Your task to perform on an android device: toggle sleep mode Image 0: 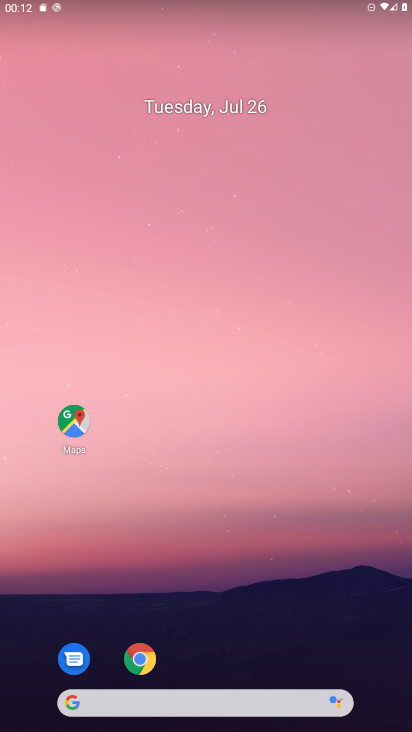
Step 0: drag from (308, 635) to (331, 139)
Your task to perform on an android device: toggle sleep mode Image 1: 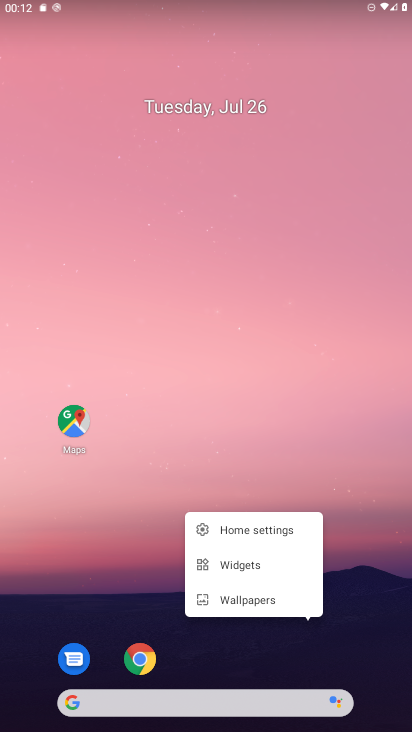
Step 1: click (263, 375)
Your task to perform on an android device: toggle sleep mode Image 2: 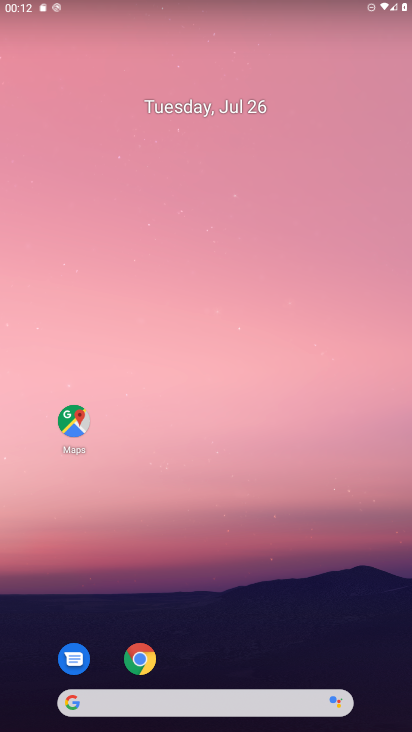
Step 2: drag from (285, 604) to (210, 105)
Your task to perform on an android device: toggle sleep mode Image 3: 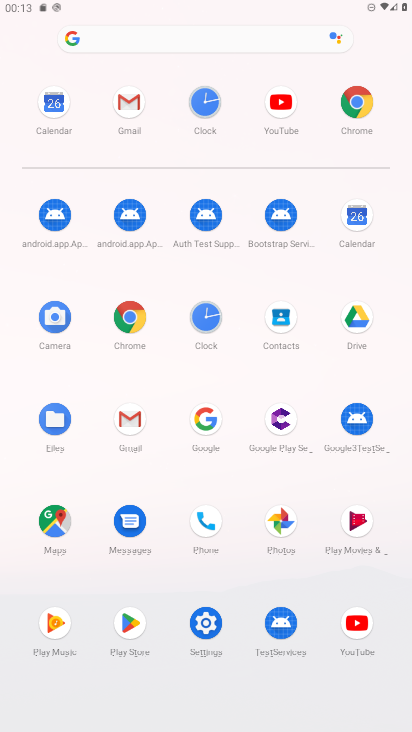
Step 3: click (213, 614)
Your task to perform on an android device: toggle sleep mode Image 4: 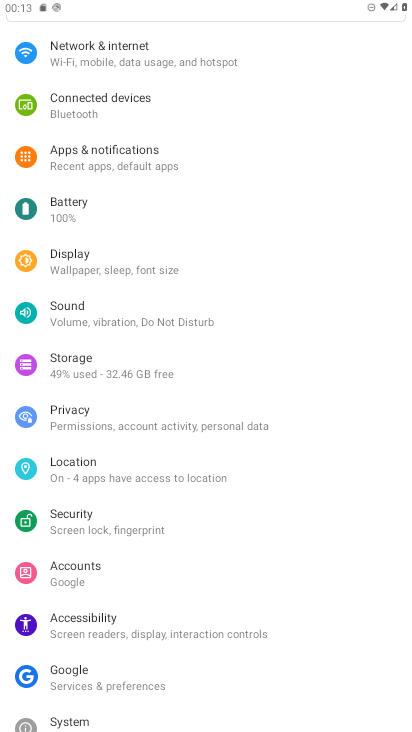
Step 4: click (97, 250)
Your task to perform on an android device: toggle sleep mode Image 5: 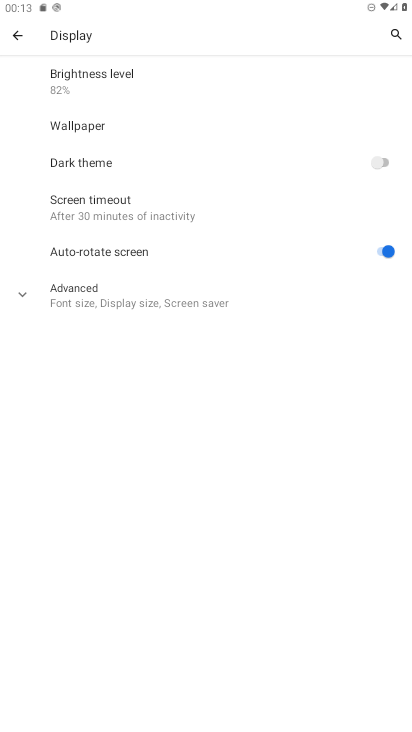
Step 5: click (106, 304)
Your task to perform on an android device: toggle sleep mode Image 6: 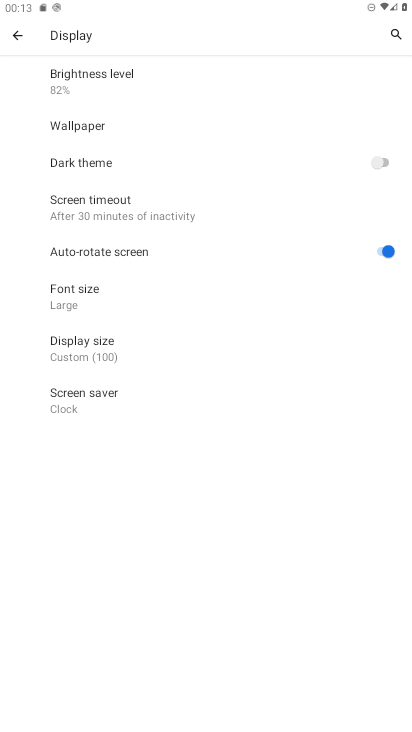
Step 6: task complete